Your task to perform on an android device: What's the weather? Image 0: 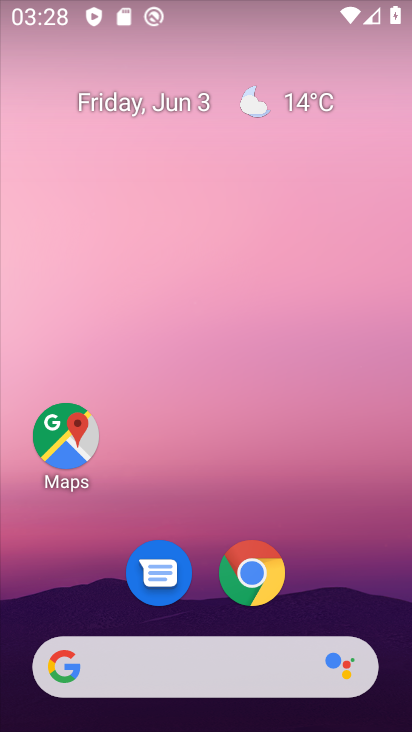
Step 0: drag from (251, 670) to (265, 114)
Your task to perform on an android device: What's the weather? Image 1: 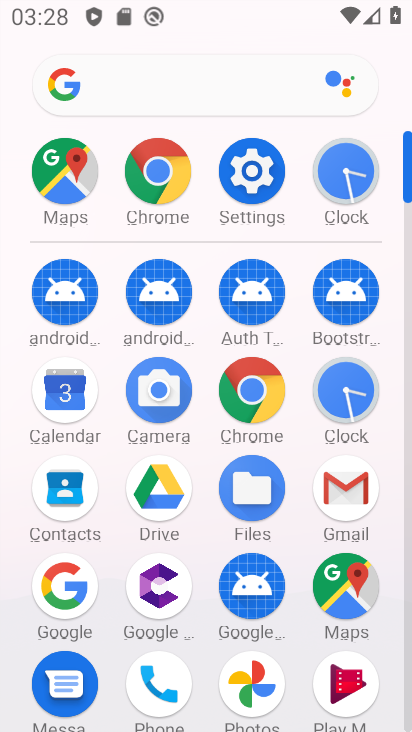
Step 1: press home button
Your task to perform on an android device: What's the weather? Image 2: 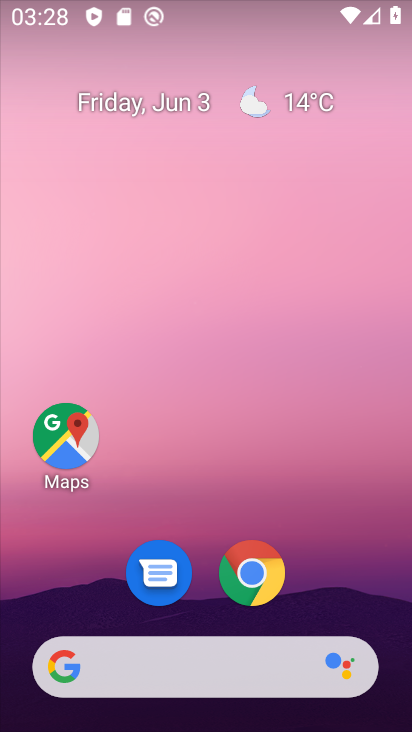
Step 2: drag from (12, 313) to (346, 316)
Your task to perform on an android device: What's the weather? Image 3: 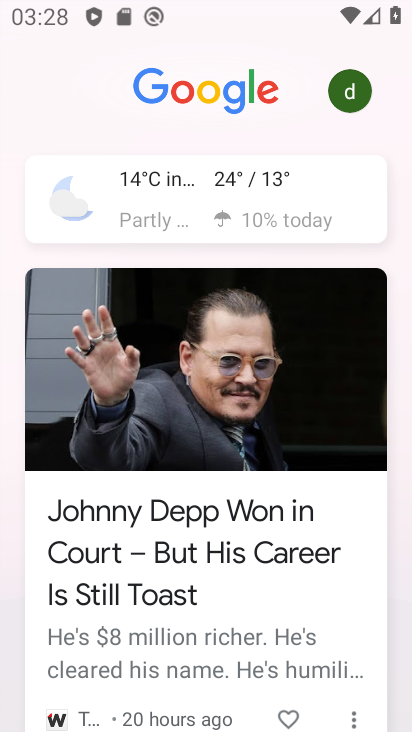
Step 3: click (232, 213)
Your task to perform on an android device: What's the weather? Image 4: 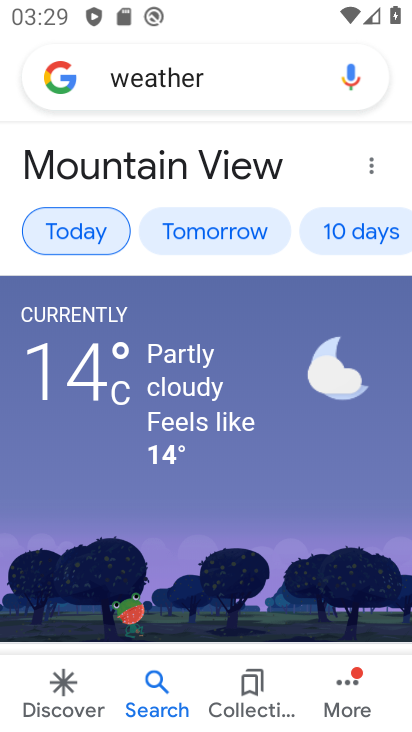
Step 4: task complete